Your task to perform on an android device: Open settings on Google Maps Image 0: 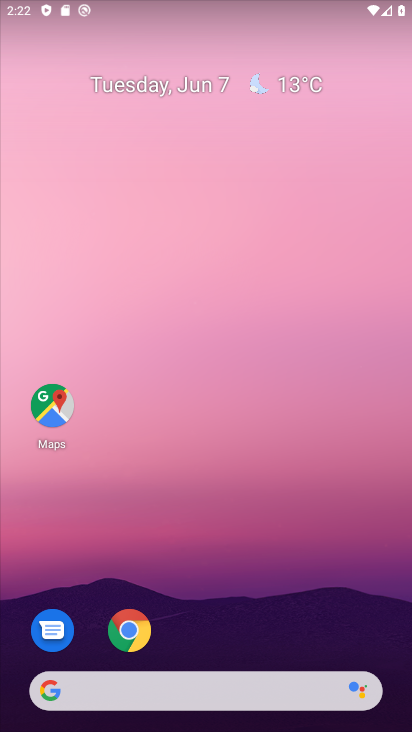
Step 0: click (41, 399)
Your task to perform on an android device: Open settings on Google Maps Image 1: 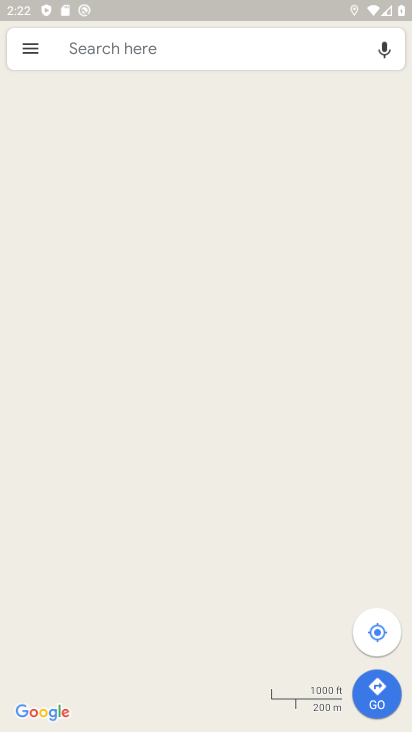
Step 1: click (36, 58)
Your task to perform on an android device: Open settings on Google Maps Image 2: 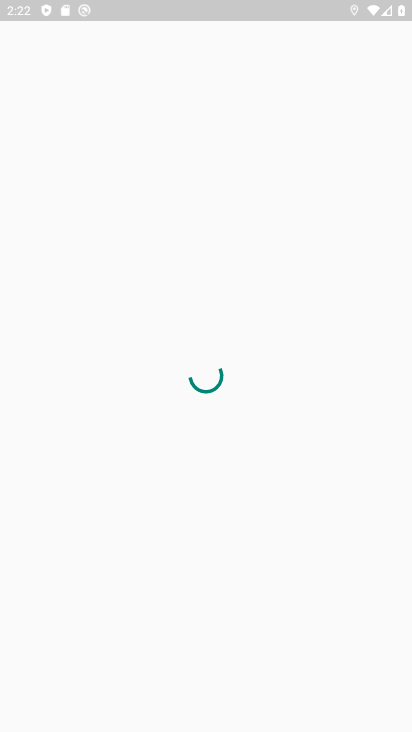
Step 2: drag from (149, 693) to (181, 218)
Your task to perform on an android device: Open settings on Google Maps Image 3: 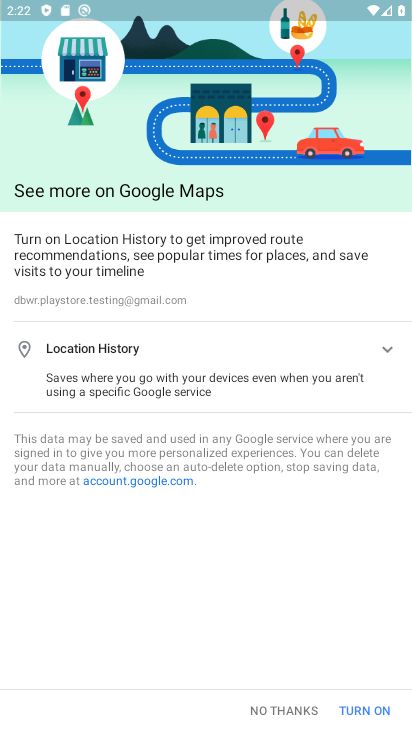
Step 3: click (360, 701)
Your task to perform on an android device: Open settings on Google Maps Image 4: 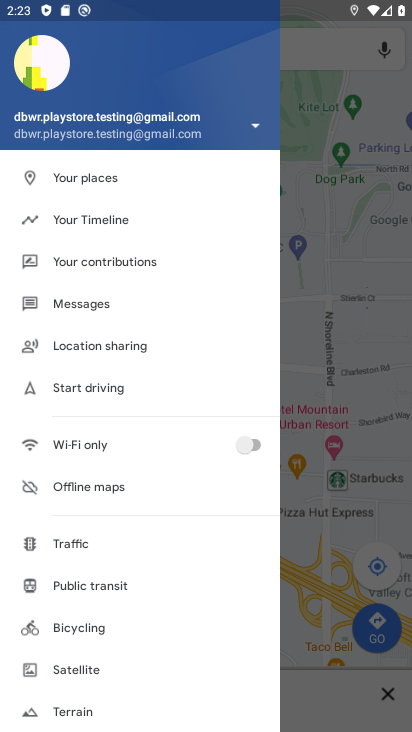
Step 4: drag from (98, 624) to (221, 143)
Your task to perform on an android device: Open settings on Google Maps Image 5: 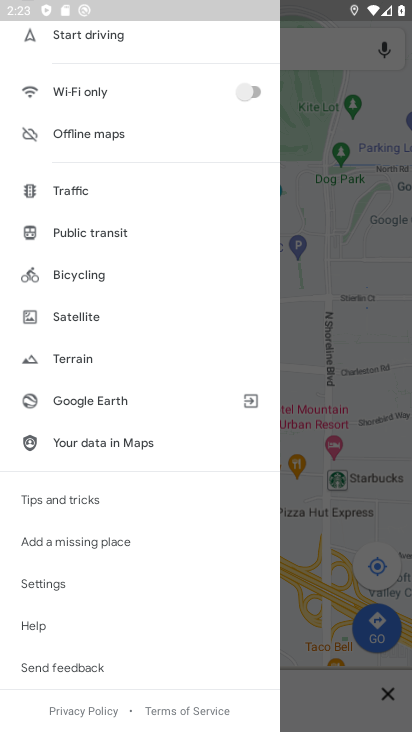
Step 5: click (48, 587)
Your task to perform on an android device: Open settings on Google Maps Image 6: 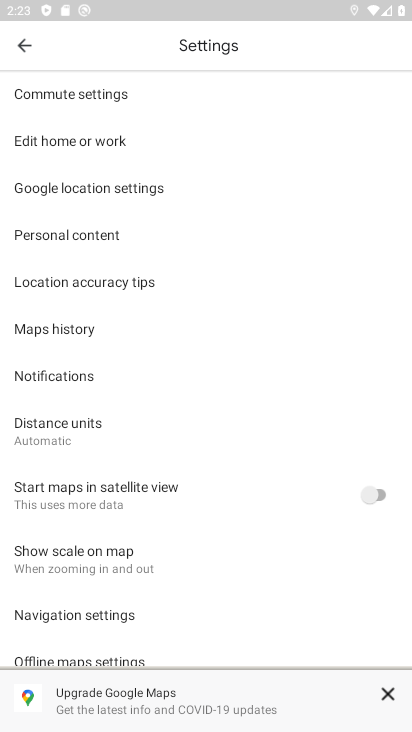
Step 6: task complete